Your task to perform on an android device: Go to network settings Image 0: 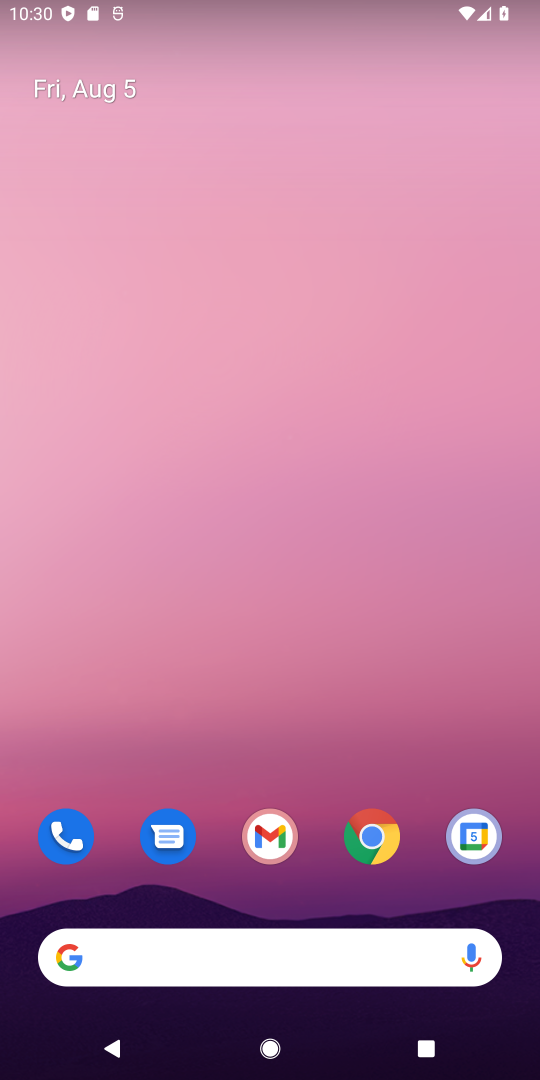
Step 0: drag from (416, 814) to (361, 195)
Your task to perform on an android device: Go to network settings Image 1: 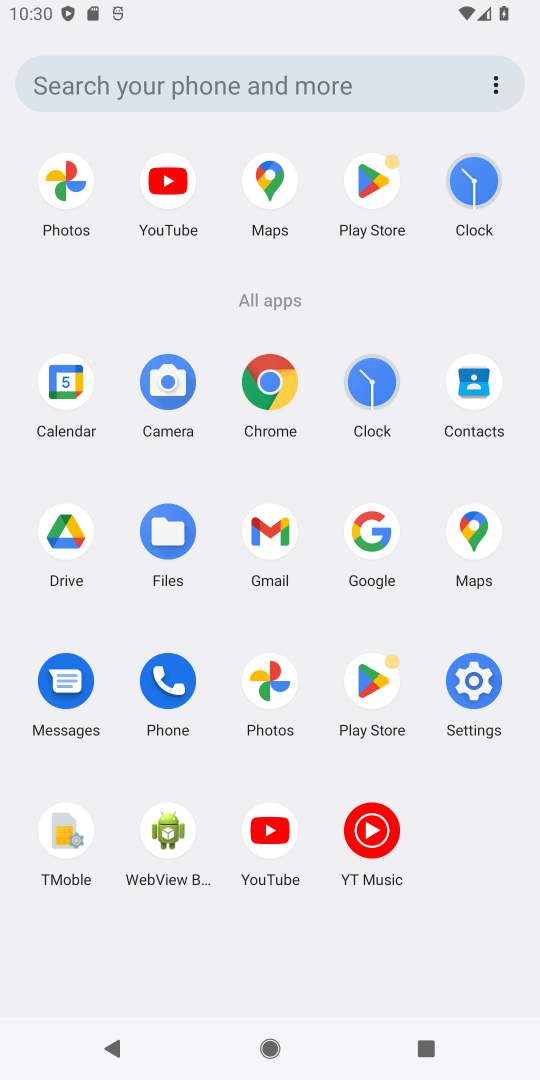
Step 1: click (469, 672)
Your task to perform on an android device: Go to network settings Image 2: 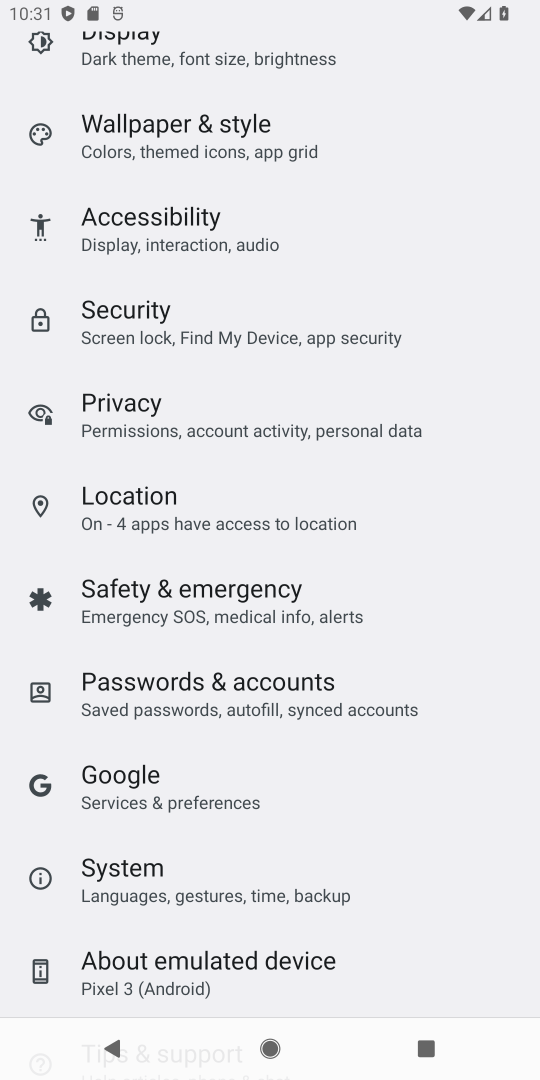
Step 2: drag from (388, 208) to (343, 679)
Your task to perform on an android device: Go to network settings Image 3: 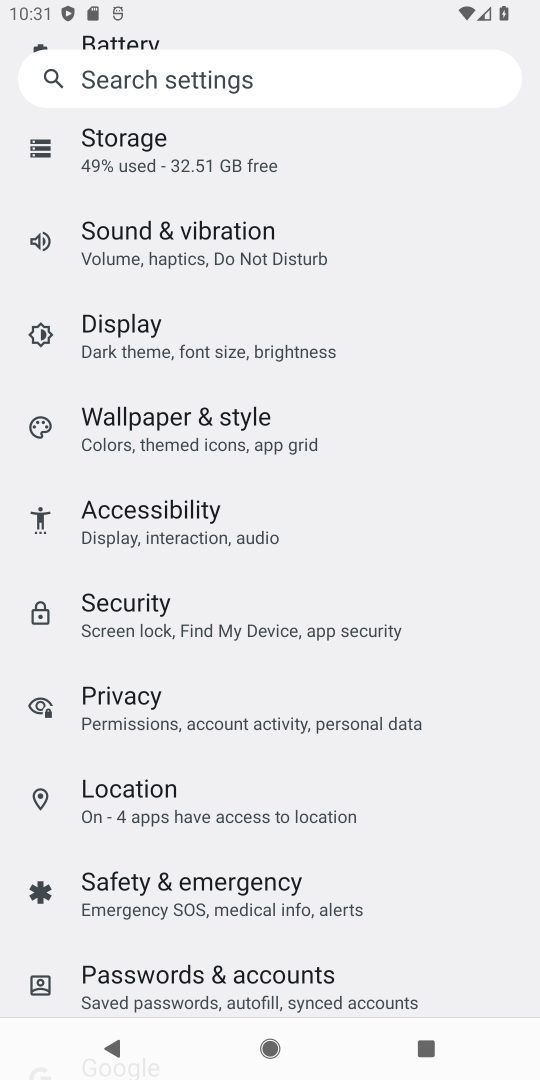
Step 3: drag from (302, 311) to (227, 721)
Your task to perform on an android device: Go to network settings Image 4: 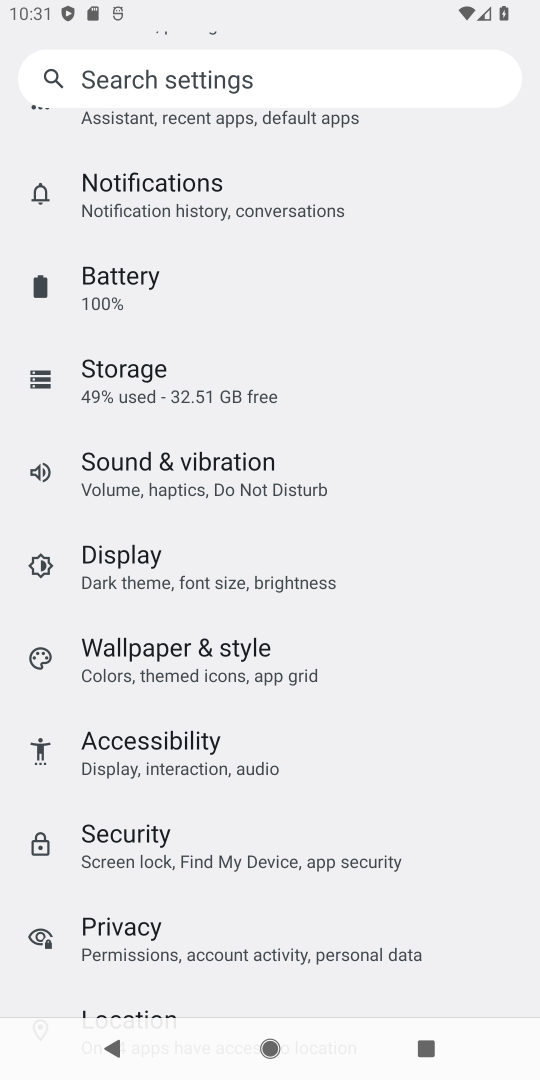
Step 4: drag from (299, 286) to (259, 715)
Your task to perform on an android device: Go to network settings Image 5: 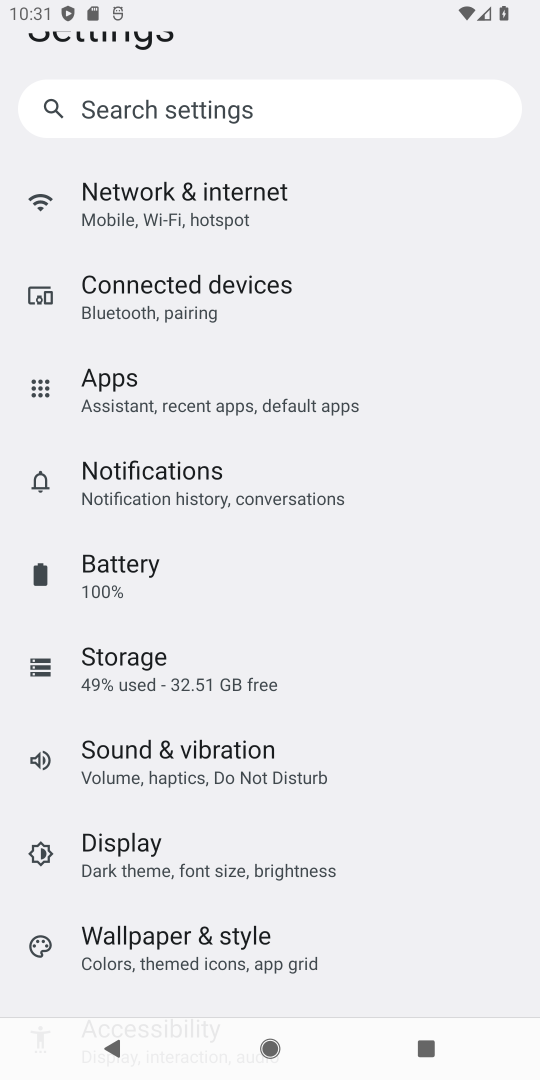
Step 5: click (227, 197)
Your task to perform on an android device: Go to network settings Image 6: 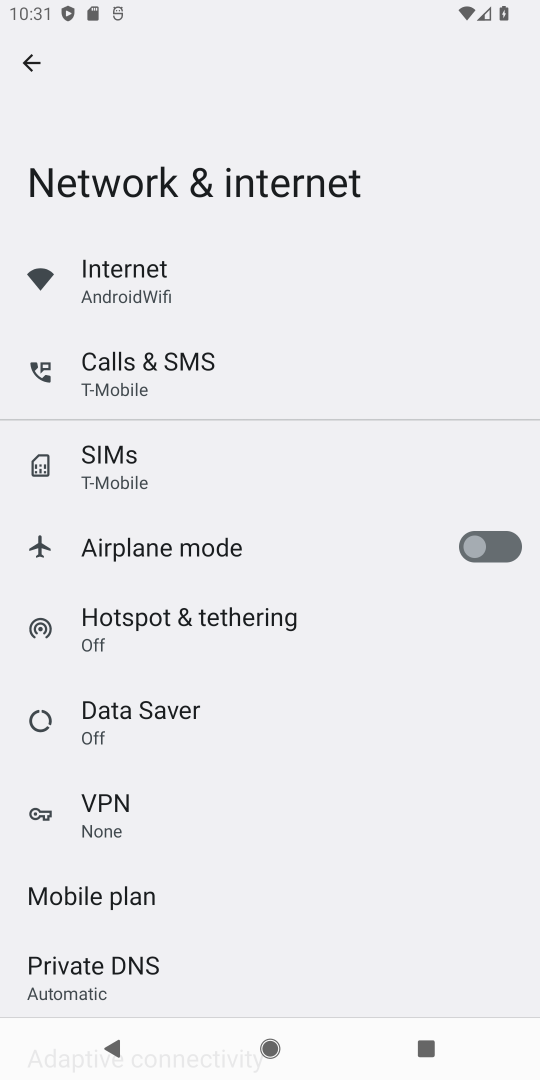
Step 6: task complete